Your task to perform on an android device: open a bookmark in the chrome app Image 0: 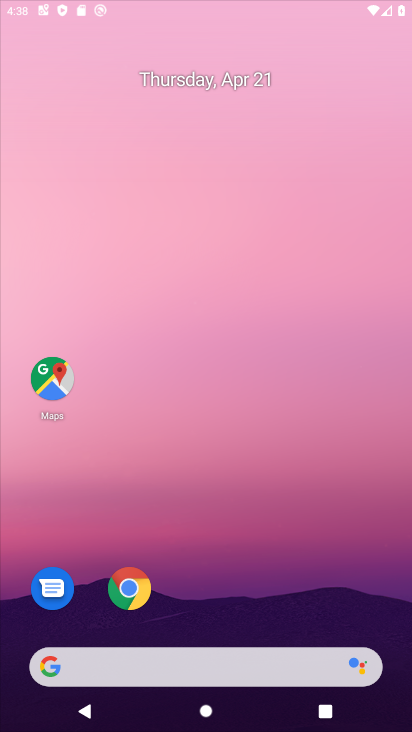
Step 0: drag from (199, 528) to (307, 44)
Your task to perform on an android device: open a bookmark in the chrome app Image 1: 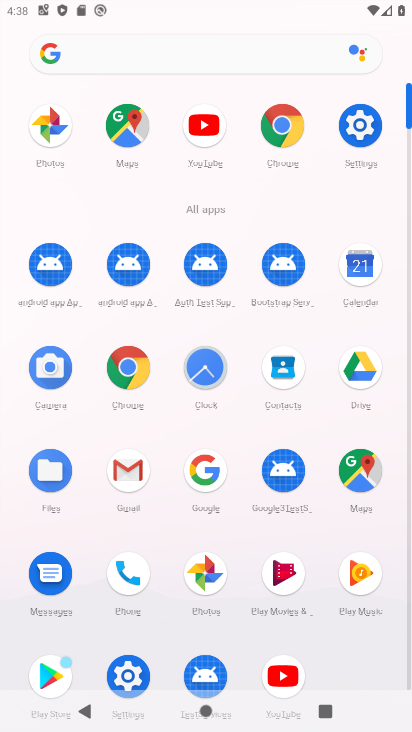
Step 1: click (362, 268)
Your task to perform on an android device: open a bookmark in the chrome app Image 2: 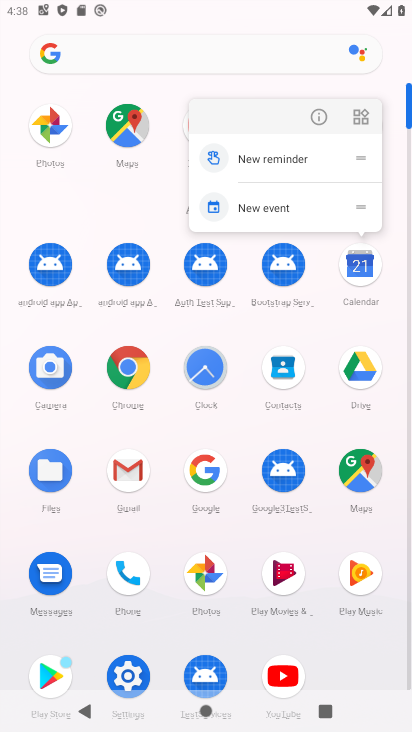
Step 2: click (65, 193)
Your task to perform on an android device: open a bookmark in the chrome app Image 3: 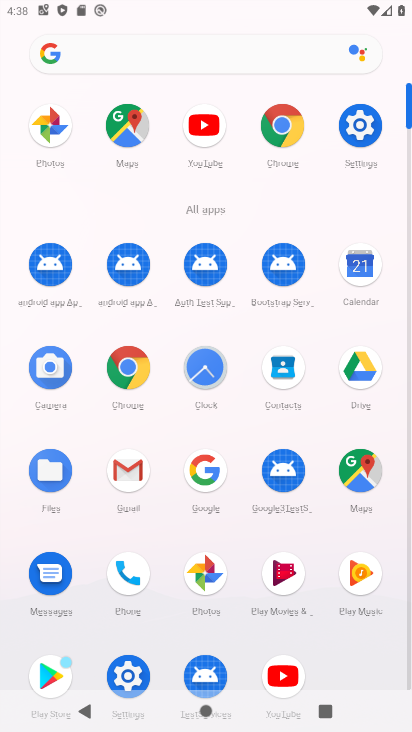
Step 3: click (281, 118)
Your task to perform on an android device: open a bookmark in the chrome app Image 4: 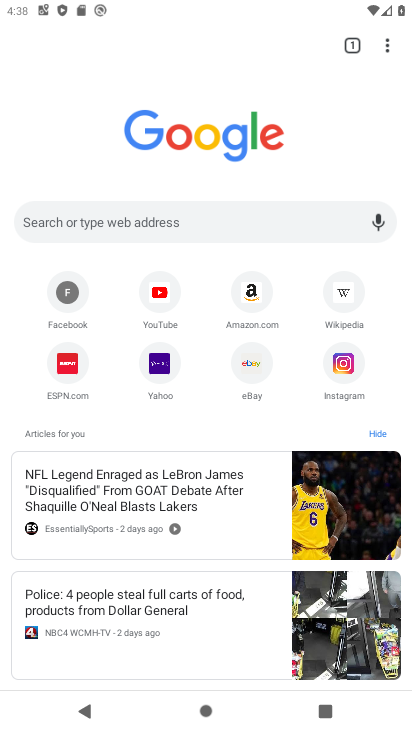
Step 4: task complete